Your task to perform on an android device: See recent photos Image 0: 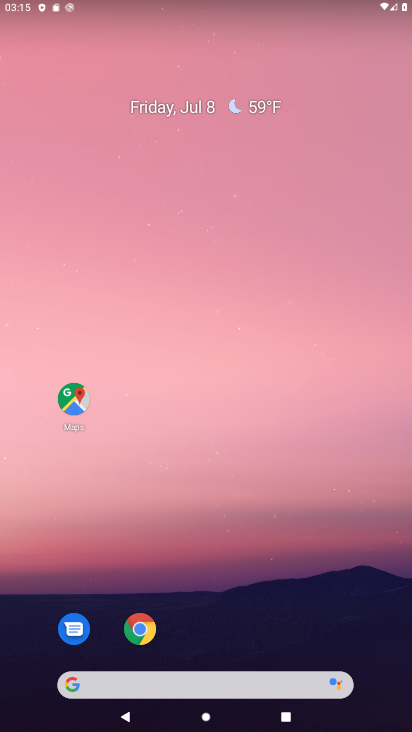
Step 0: click (262, 1)
Your task to perform on an android device: See recent photos Image 1: 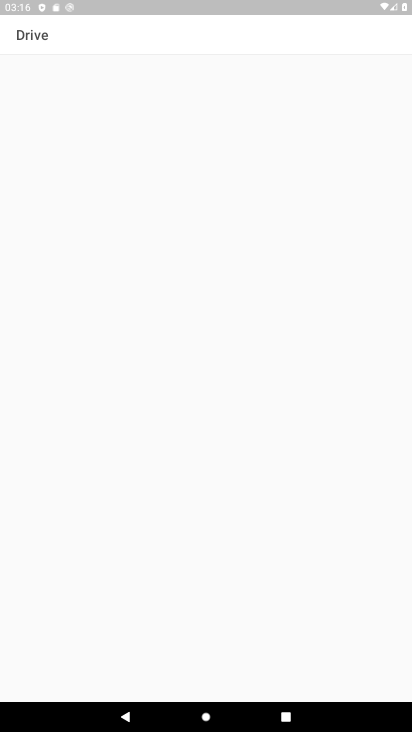
Step 1: press home button
Your task to perform on an android device: See recent photos Image 2: 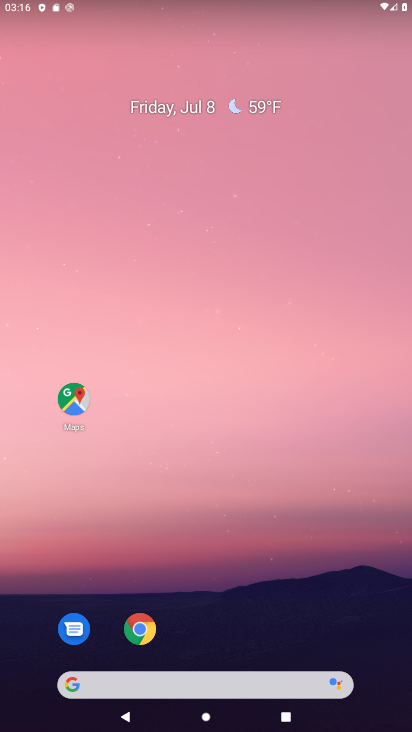
Step 2: drag from (220, 625) to (264, 71)
Your task to perform on an android device: See recent photos Image 3: 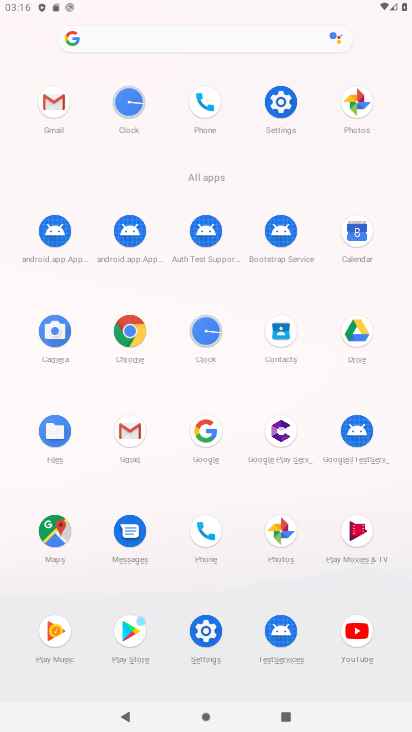
Step 3: click (270, 523)
Your task to perform on an android device: See recent photos Image 4: 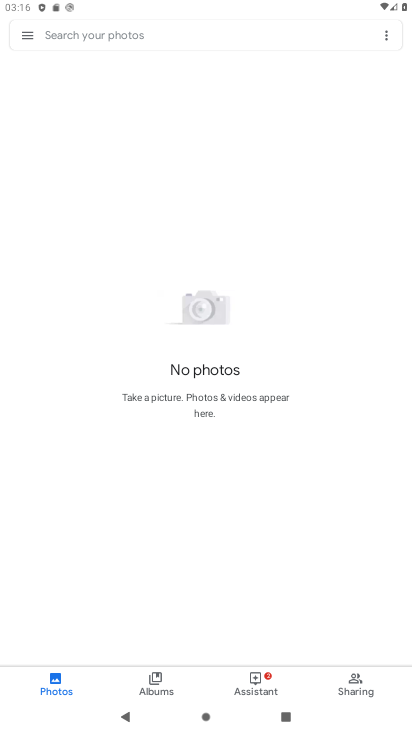
Step 4: task complete